Your task to perform on an android device: open app "Yahoo Mail" Image 0: 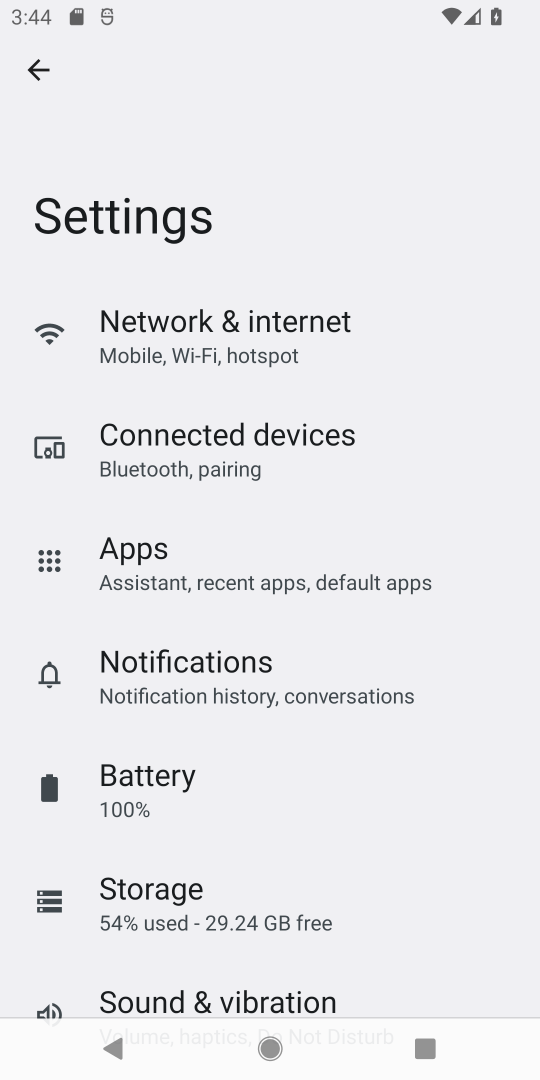
Step 0: press home button
Your task to perform on an android device: open app "Yahoo Mail" Image 1: 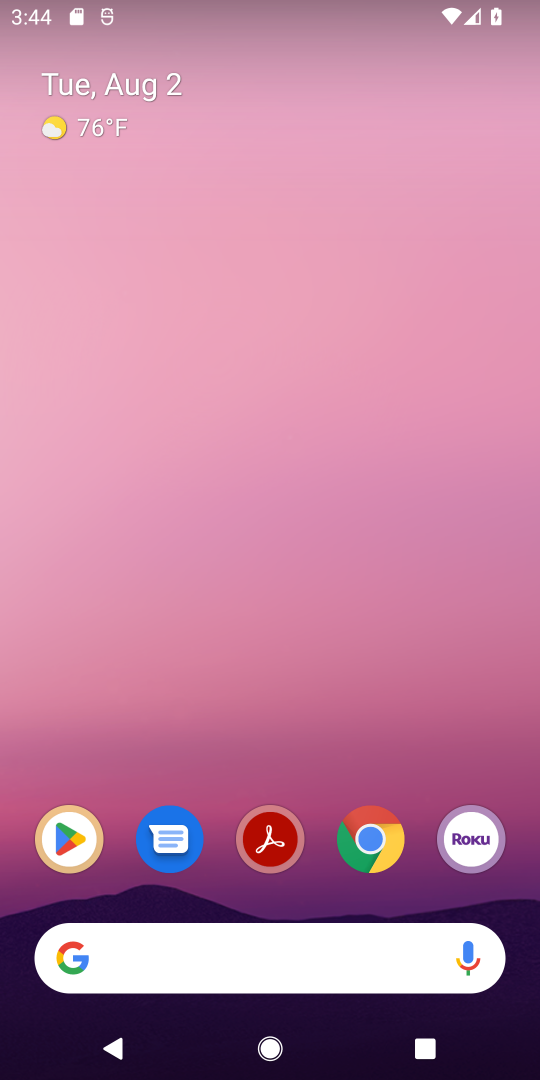
Step 1: click (81, 871)
Your task to perform on an android device: open app "Yahoo Mail" Image 2: 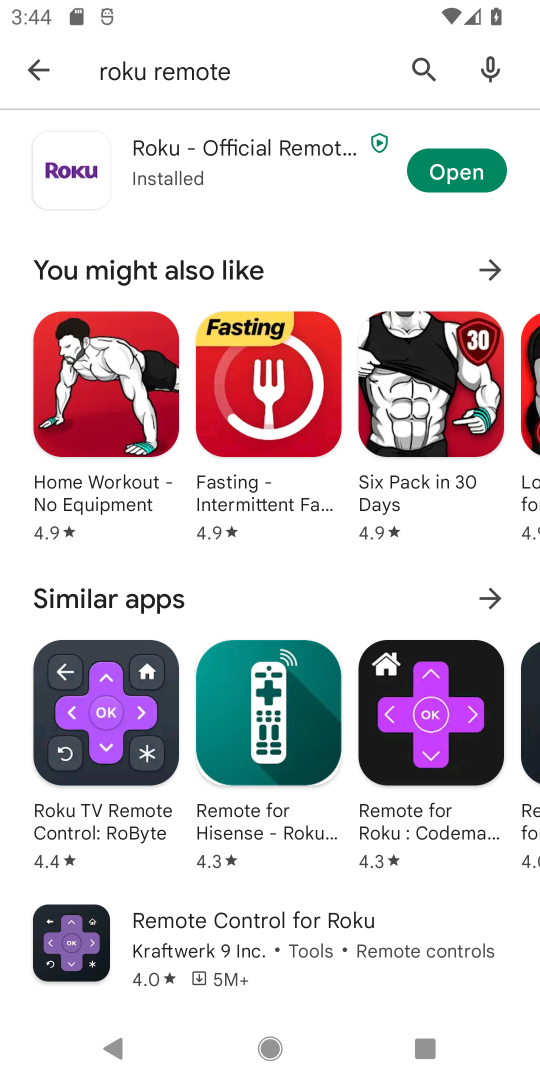
Step 2: click (428, 84)
Your task to perform on an android device: open app "Yahoo Mail" Image 3: 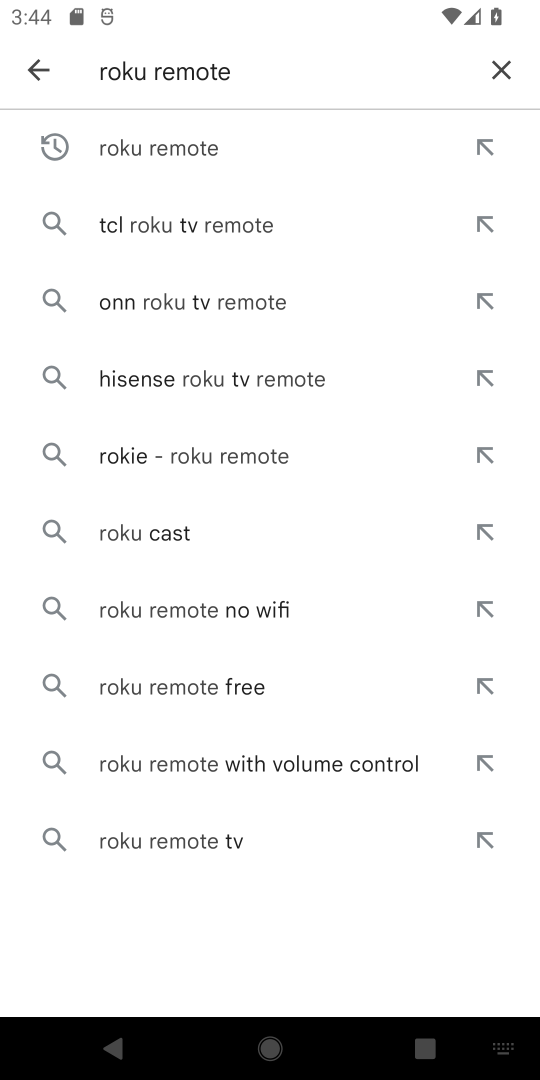
Step 3: click (485, 82)
Your task to perform on an android device: open app "Yahoo Mail" Image 4: 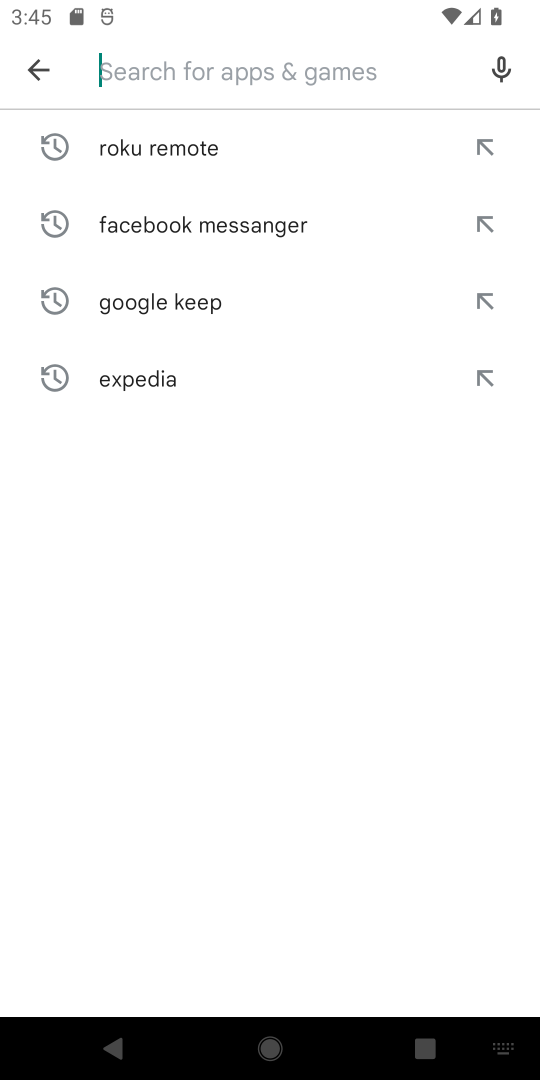
Step 4: type "yahoomail.com"
Your task to perform on an android device: open app "Yahoo Mail" Image 5: 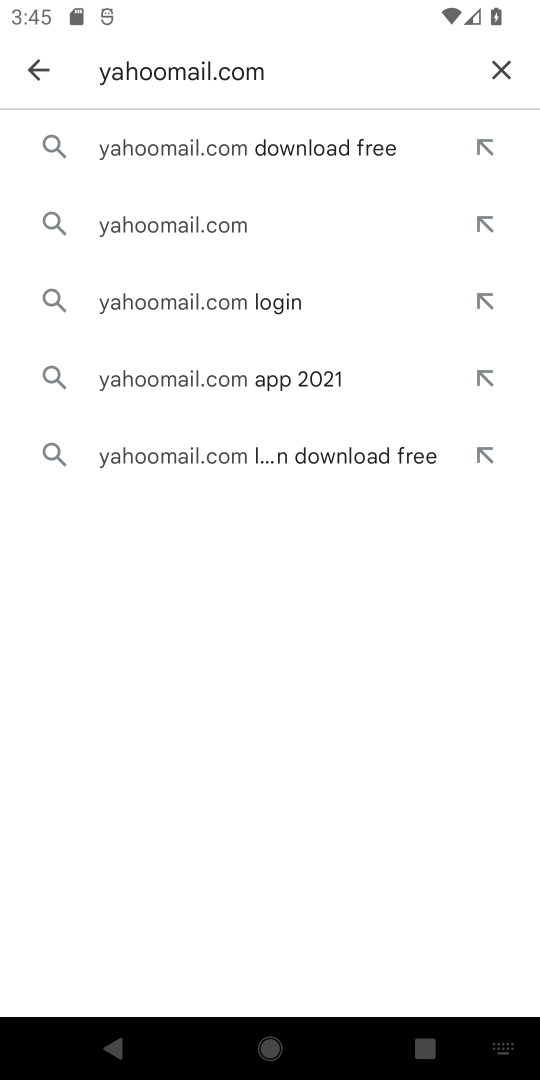
Step 5: click (266, 165)
Your task to perform on an android device: open app "Yahoo Mail" Image 6: 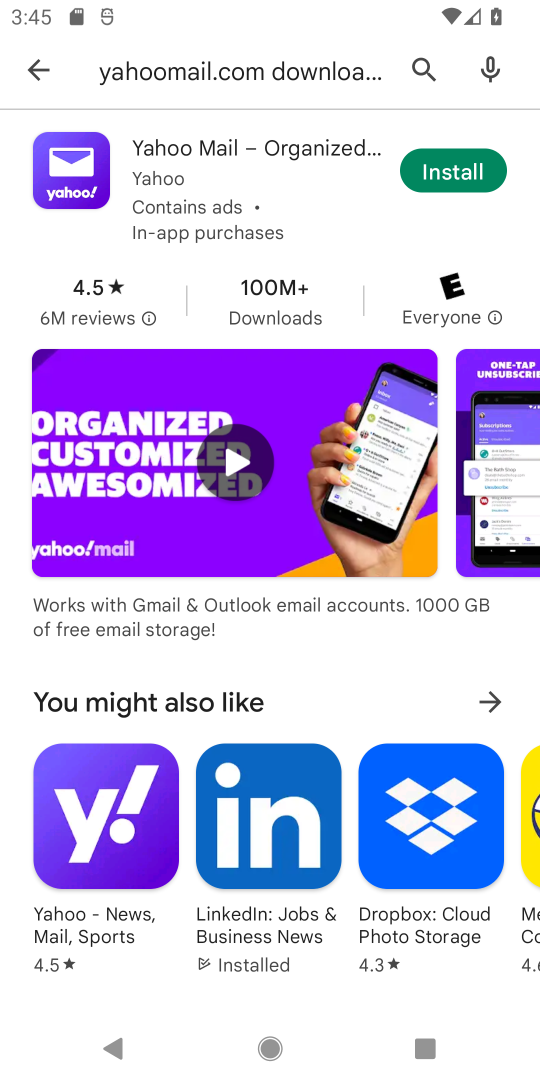
Step 6: click (462, 166)
Your task to perform on an android device: open app "Yahoo Mail" Image 7: 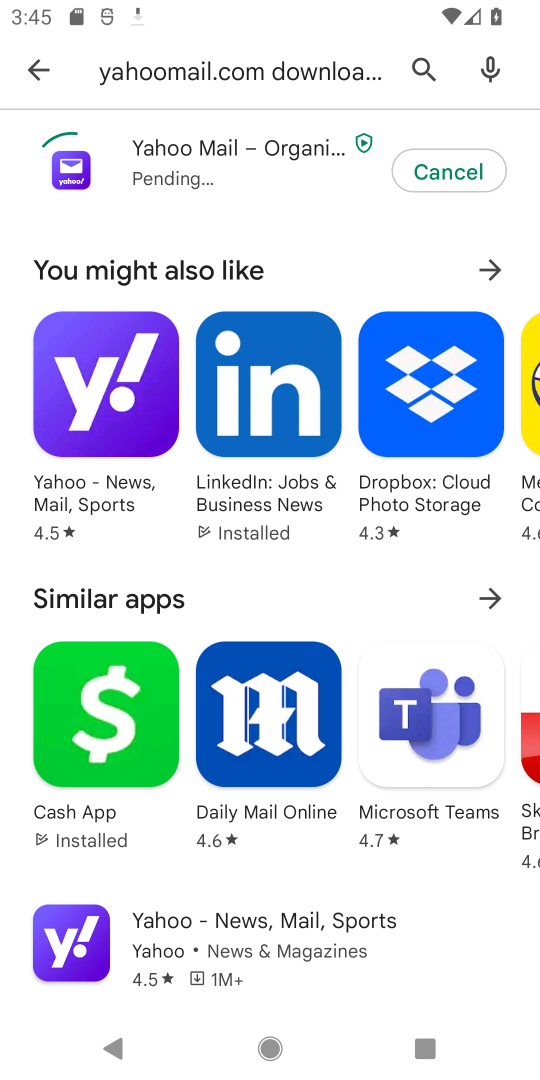
Step 7: task complete